Your task to perform on an android device: What's on my calendar today? Image 0: 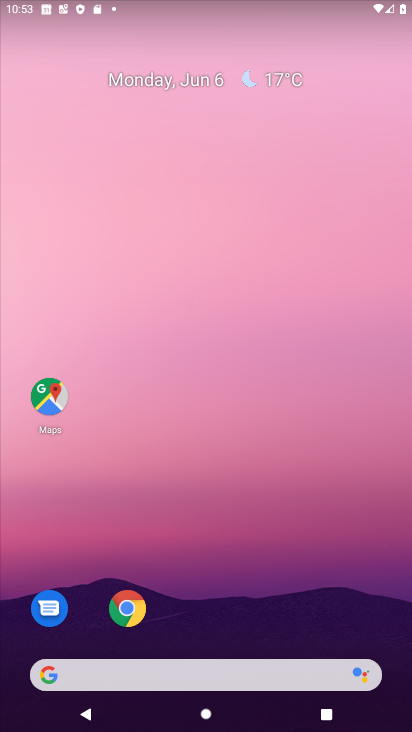
Step 0: drag from (243, 619) to (208, 152)
Your task to perform on an android device: What's on my calendar today? Image 1: 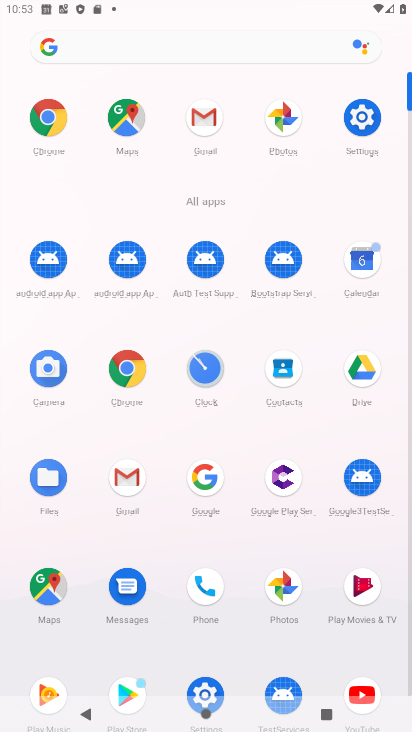
Step 1: click (359, 268)
Your task to perform on an android device: What's on my calendar today? Image 2: 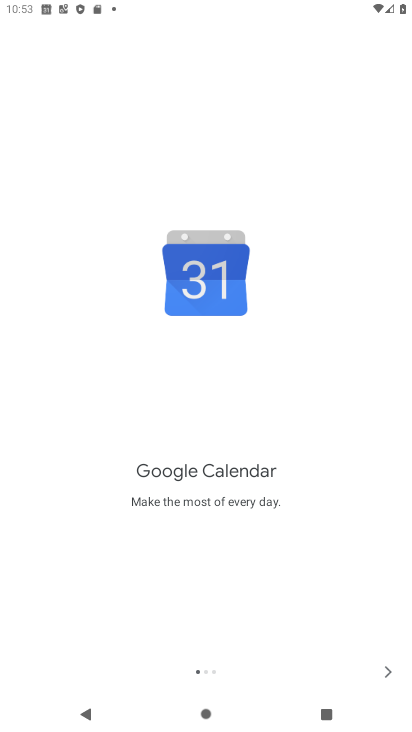
Step 2: click (389, 671)
Your task to perform on an android device: What's on my calendar today? Image 3: 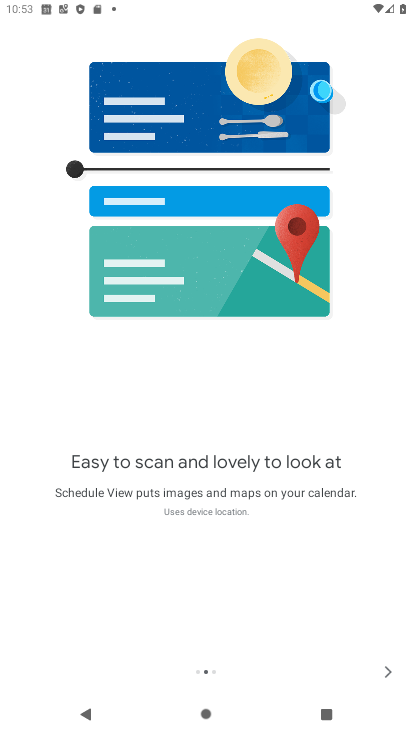
Step 3: click (389, 671)
Your task to perform on an android device: What's on my calendar today? Image 4: 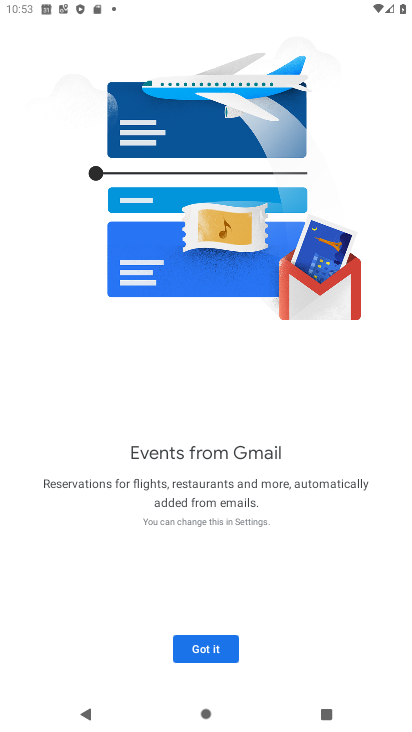
Step 4: click (202, 650)
Your task to perform on an android device: What's on my calendar today? Image 5: 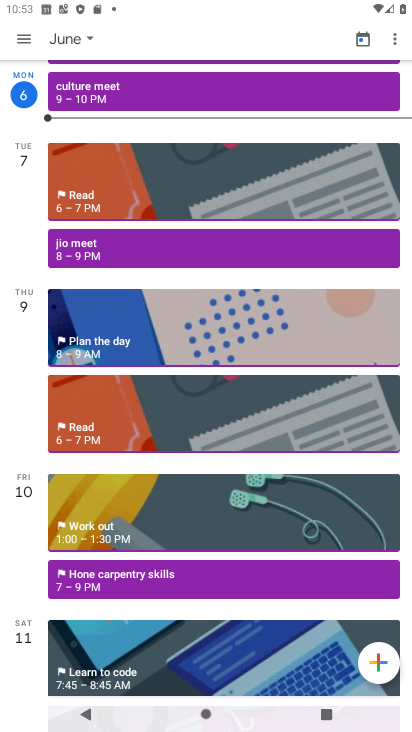
Step 5: task complete